Your task to perform on an android device: See recent photos Image 0: 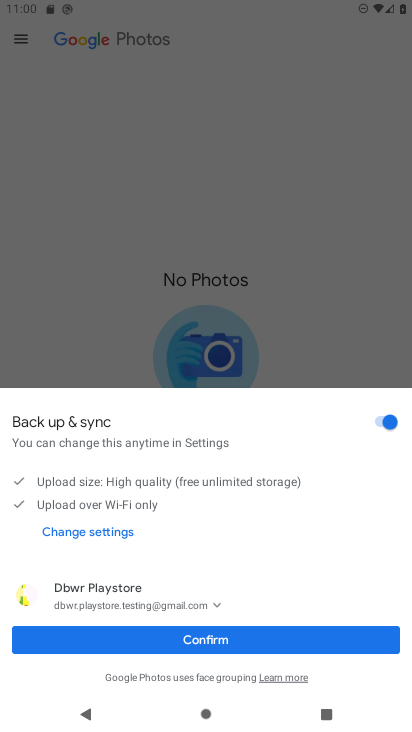
Step 0: click (259, 645)
Your task to perform on an android device: See recent photos Image 1: 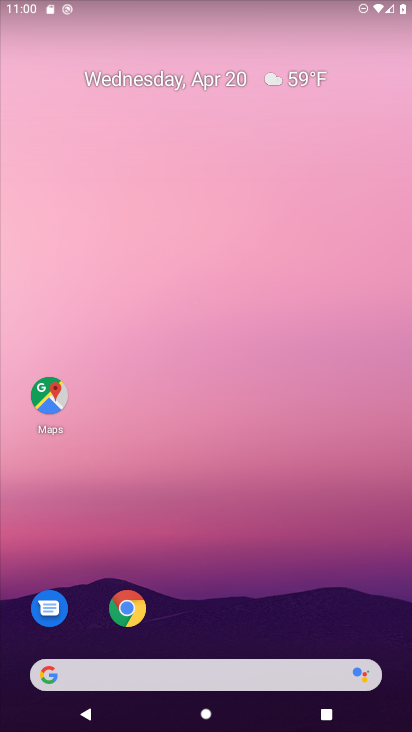
Step 1: drag from (221, 607) to (214, 194)
Your task to perform on an android device: See recent photos Image 2: 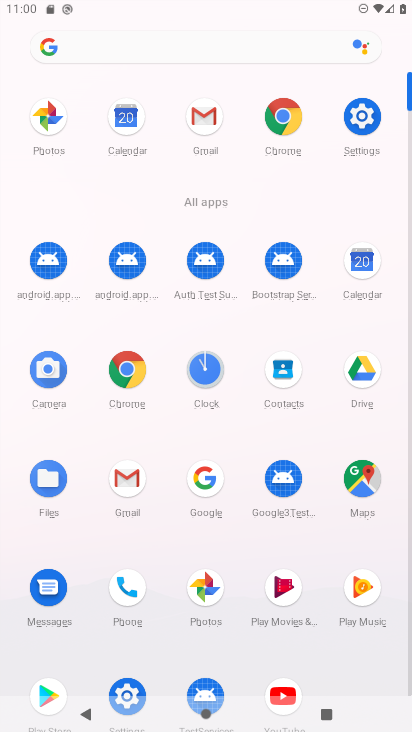
Step 2: click (213, 588)
Your task to perform on an android device: See recent photos Image 3: 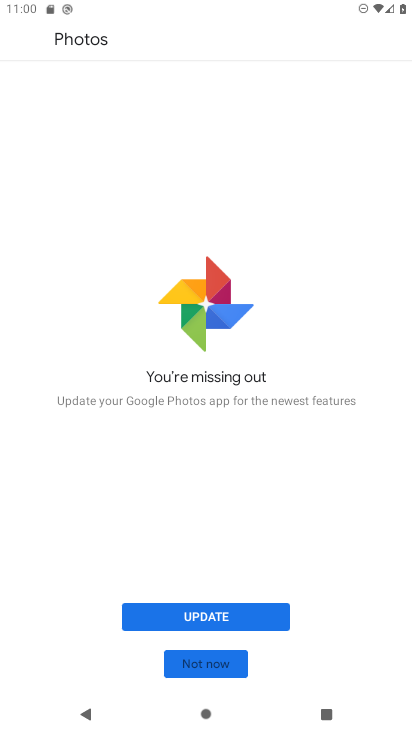
Step 3: click (226, 617)
Your task to perform on an android device: See recent photos Image 4: 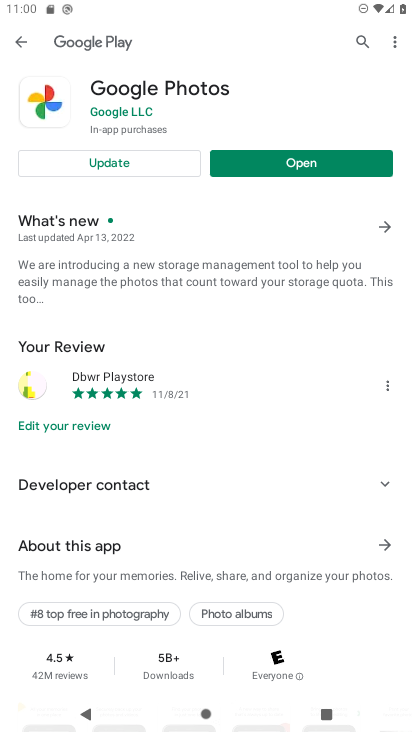
Step 4: click (129, 165)
Your task to perform on an android device: See recent photos Image 5: 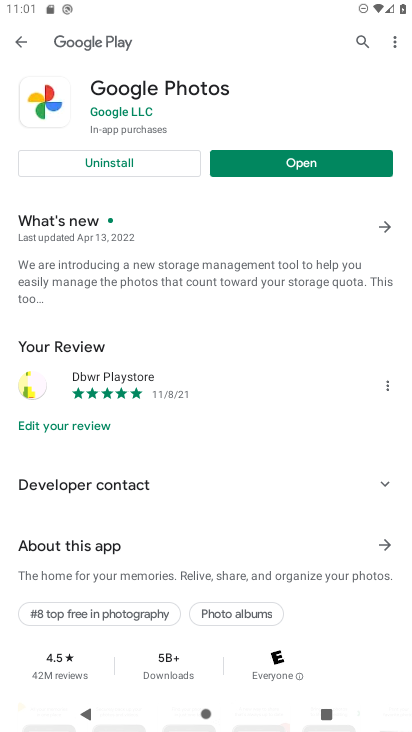
Step 5: click (281, 164)
Your task to perform on an android device: See recent photos Image 6: 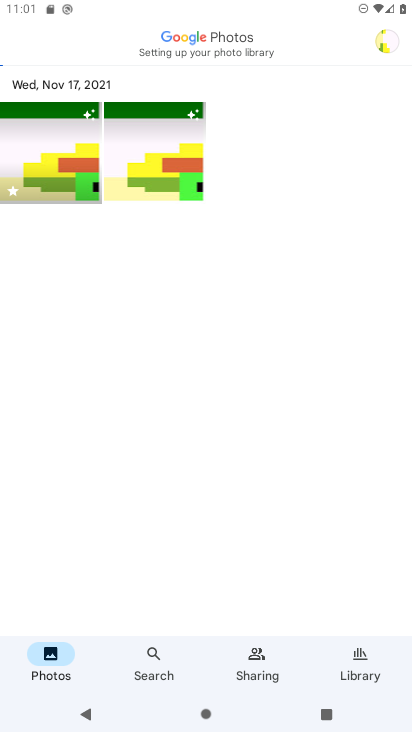
Step 6: task complete